Your task to perform on an android device: Open Youtube and go to the subscriptions tab Image 0: 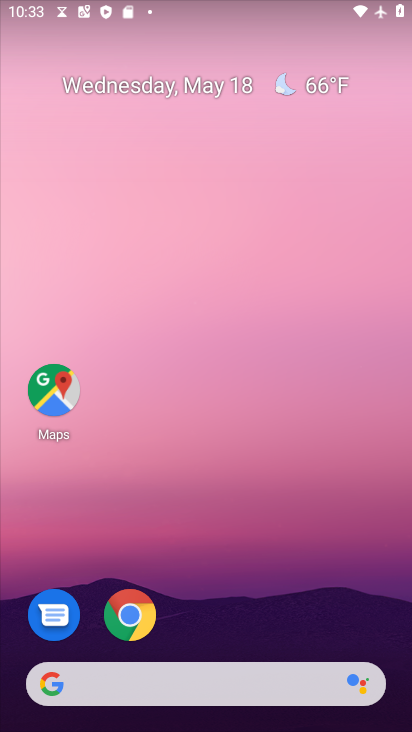
Step 0: drag from (233, 586) to (155, 26)
Your task to perform on an android device: Open Youtube and go to the subscriptions tab Image 1: 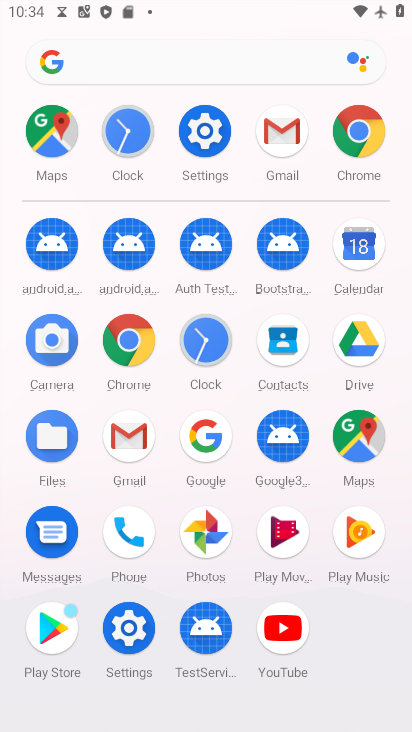
Step 1: click (279, 628)
Your task to perform on an android device: Open Youtube and go to the subscriptions tab Image 2: 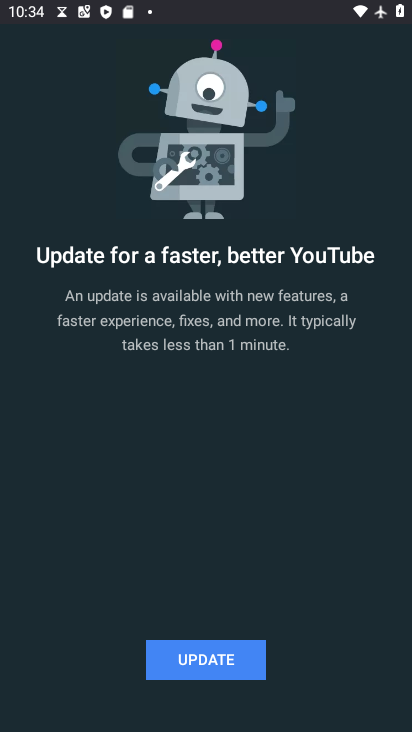
Step 2: click (215, 661)
Your task to perform on an android device: Open Youtube and go to the subscriptions tab Image 3: 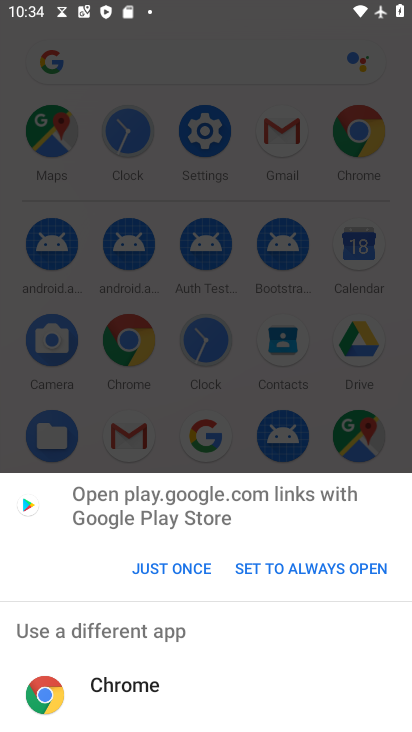
Step 3: click (168, 567)
Your task to perform on an android device: Open Youtube and go to the subscriptions tab Image 4: 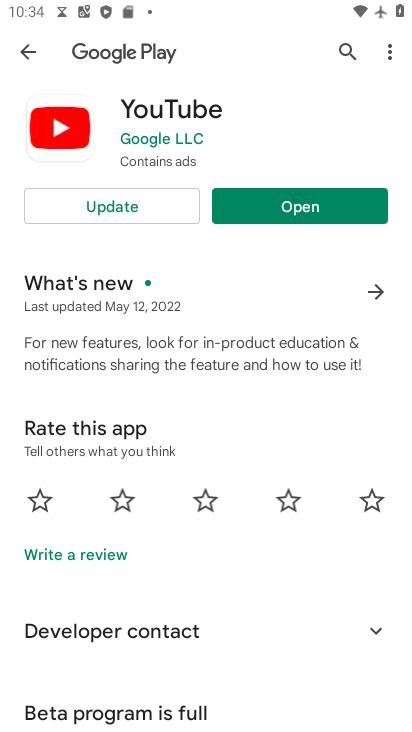
Step 4: click (128, 198)
Your task to perform on an android device: Open Youtube and go to the subscriptions tab Image 5: 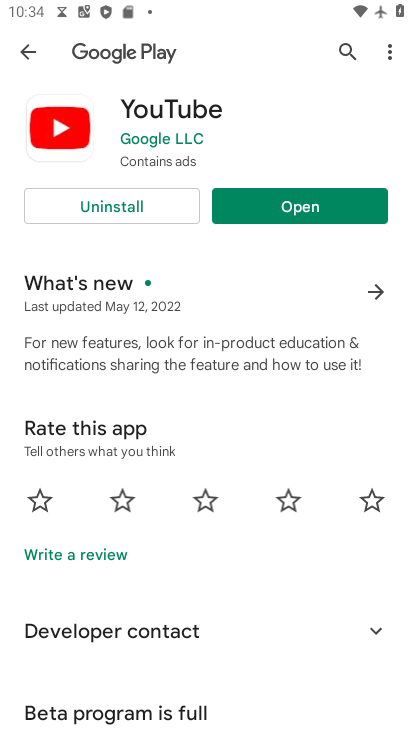
Step 5: click (254, 214)
Your task to perform on an android device: Open Youtube and go to the subscriptions tab Image 6: 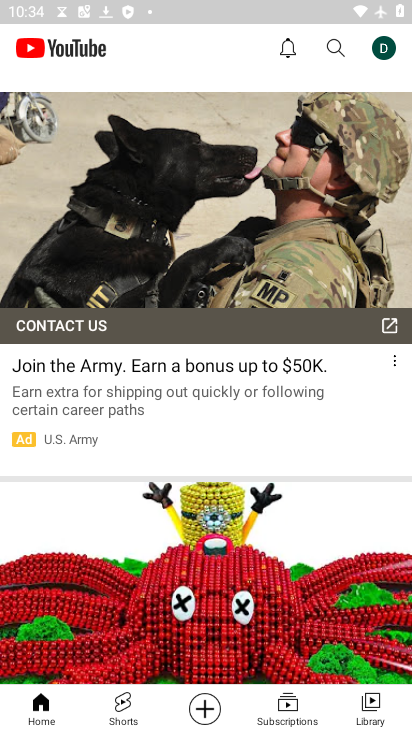
Step 6: click (293, 707)
Your task to perform on an android device: Open Youtube and go to the subscriptions tab Image 7: 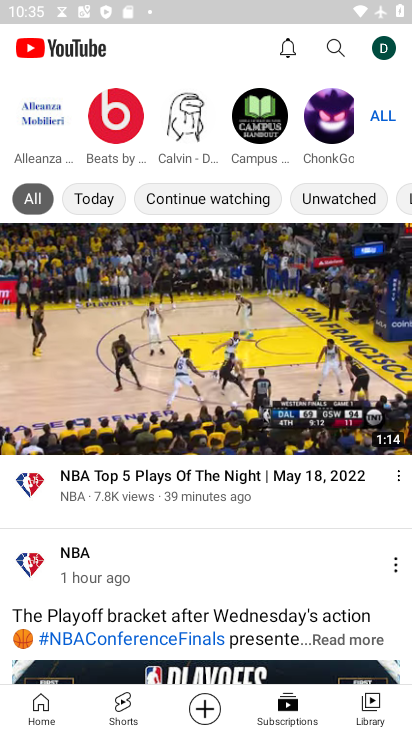
Step 7: task complete